Your task to perform on an android device: find which apps use the phone's location Image 0: 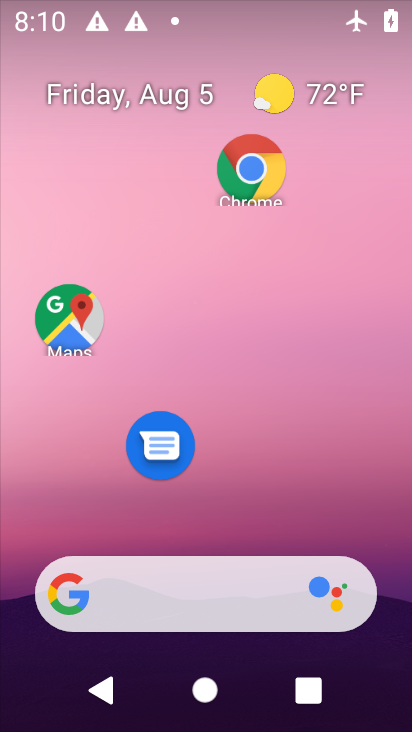
Step 0: drag from (222, 412) to (187, 109)
Your task to perform on an android device: find which apps use the phone's location Image 1: 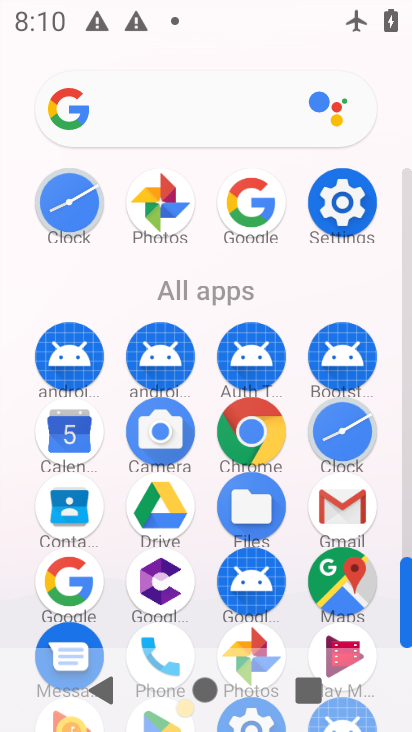
Step 1: click (310, 203)
Your task to perform on an android device: find which apps use the phone's location Image 2: 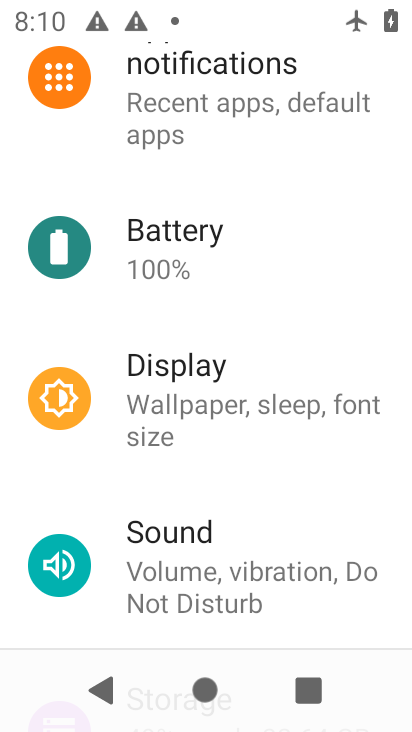
Step 2: drag from (275, 534) to (277, 203)
Your task to perform on an android device: find which apps use the phone's location Image 3: 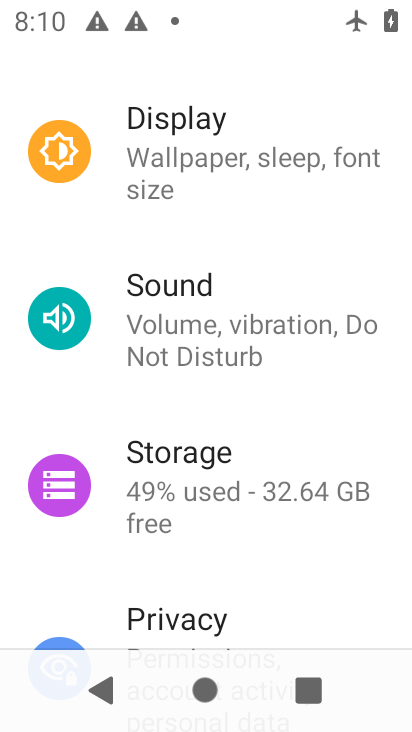
Step 3: drag from (271, 557) to (269, 245)
Your task to perform on an android device: find which apps use the phone's location Image 4: 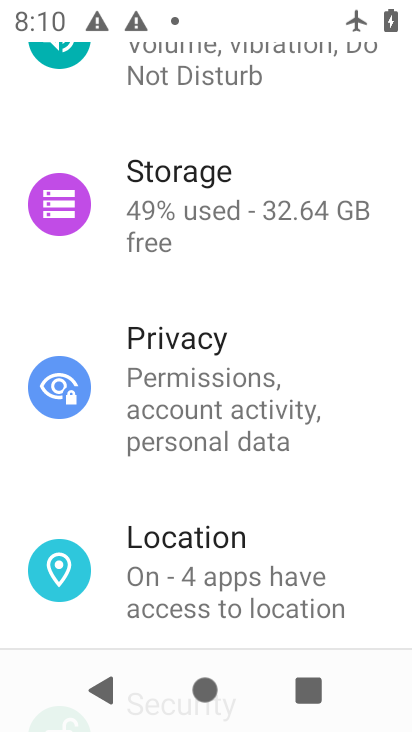
Step 4: click (237, 554)
Your task to perform on an android device: find which apps use the phone's location Image 5: 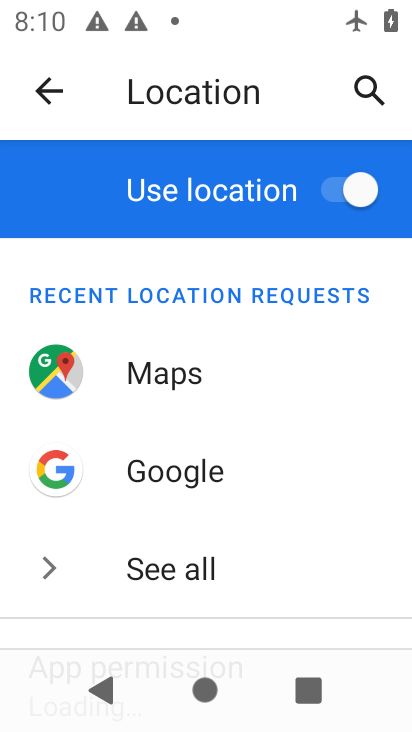
Step 5: drag from (263, 529) to (260, 232)
Your task to perform on an android device: find which apps use the phone's location Image 6: 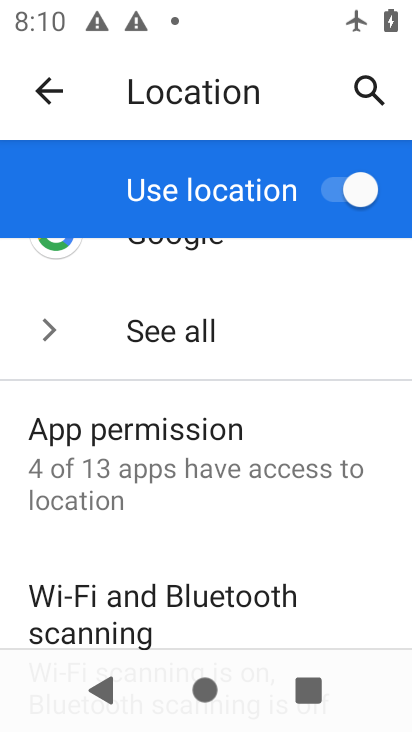
Step 6: drag from (200, 490) to (227, 141)
Your task to perform on an android device: find which apps use the phone's location Image 7: 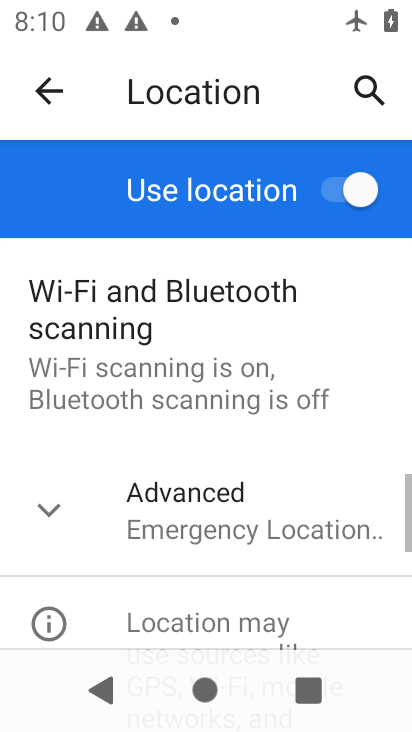
Step 7: click (227, 141)
Your task to perform on an android device: find which apps use the phone's location Image 8: 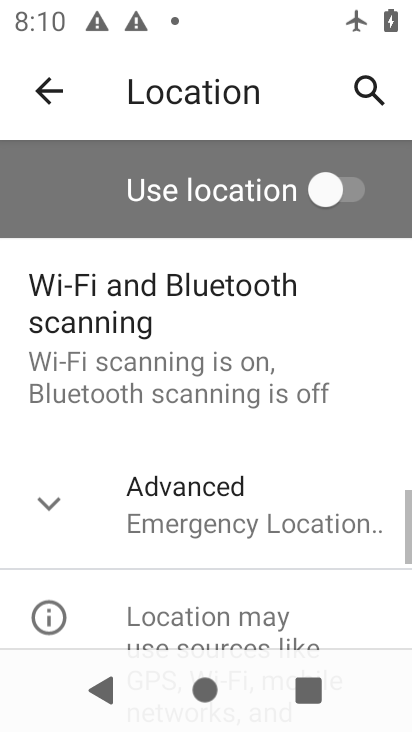
Step 8: drag from (187, 349) to (156, 554)
Your task to perform on an android device: find which apps use the phone's location Image 9: 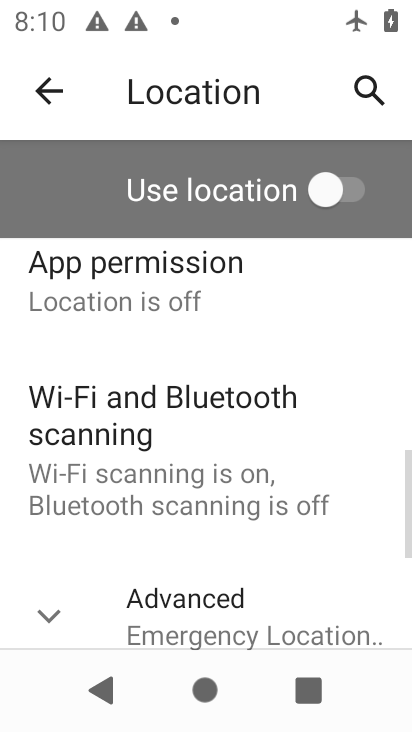
Step 9: click (201, 310)
Your task to perform on an android device: find which apps use the phone's location Image 10: 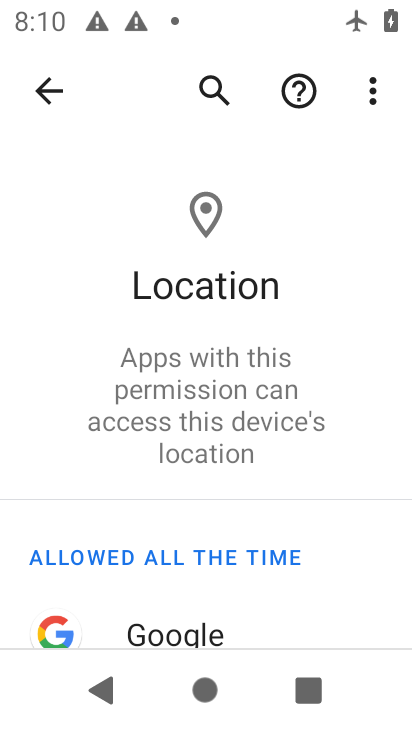
Step 10: task complete